Your task to perform on an android device: Open Chrome and go to settings Image 0: 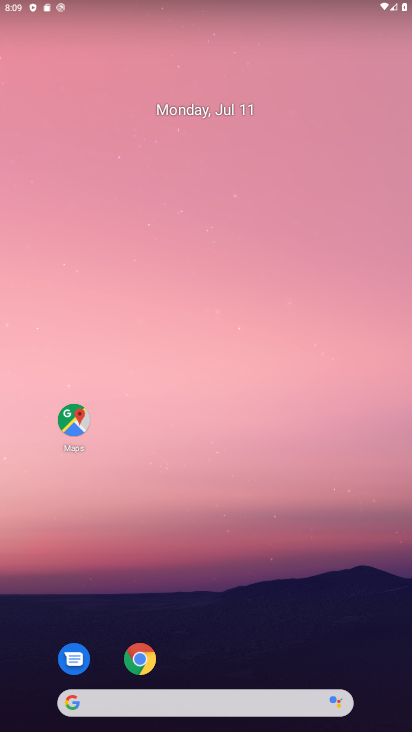
Step 0: click (147, 650)
Your task to perform on an android device: Open Chrome and go to settings Image 1: 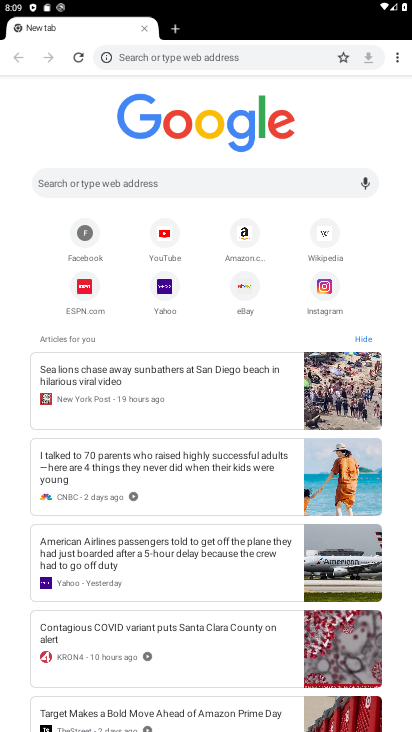
Step 1: click (396, 58)
Your task to perform on an android device: Open Chrome and go to settings Image 2: 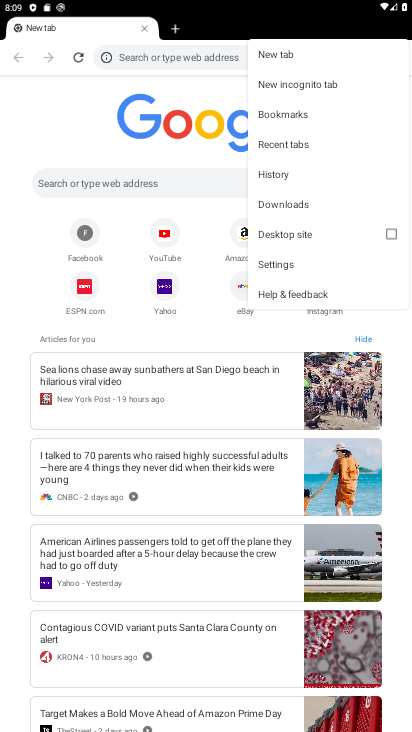
Step 2: click (284, 264)
Your task to perform on an android device: Open Chrome and go to settings Image 3: 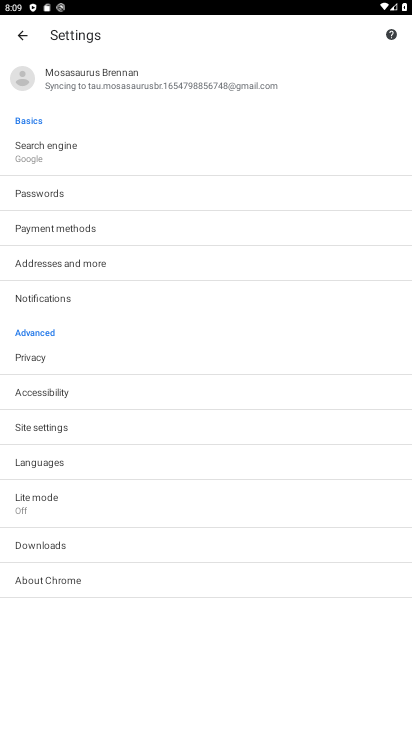
Step 3: task complete